Your task to perform on an android device: Is it going to rain this weekend? Image 0: 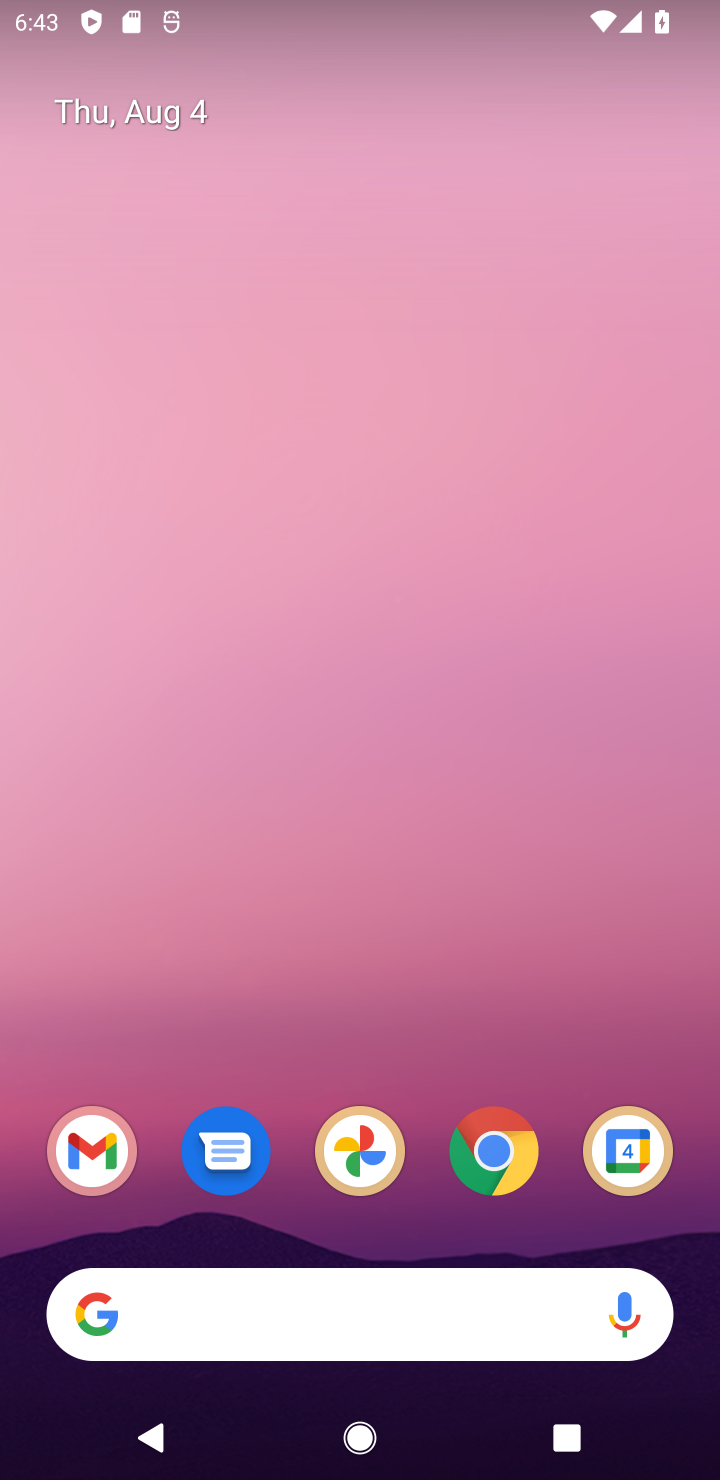
Step 0: drag from (305, 1111) to (279, 54)
Your task to perform on an android device: Is it going to rain this weekend? Image 1: 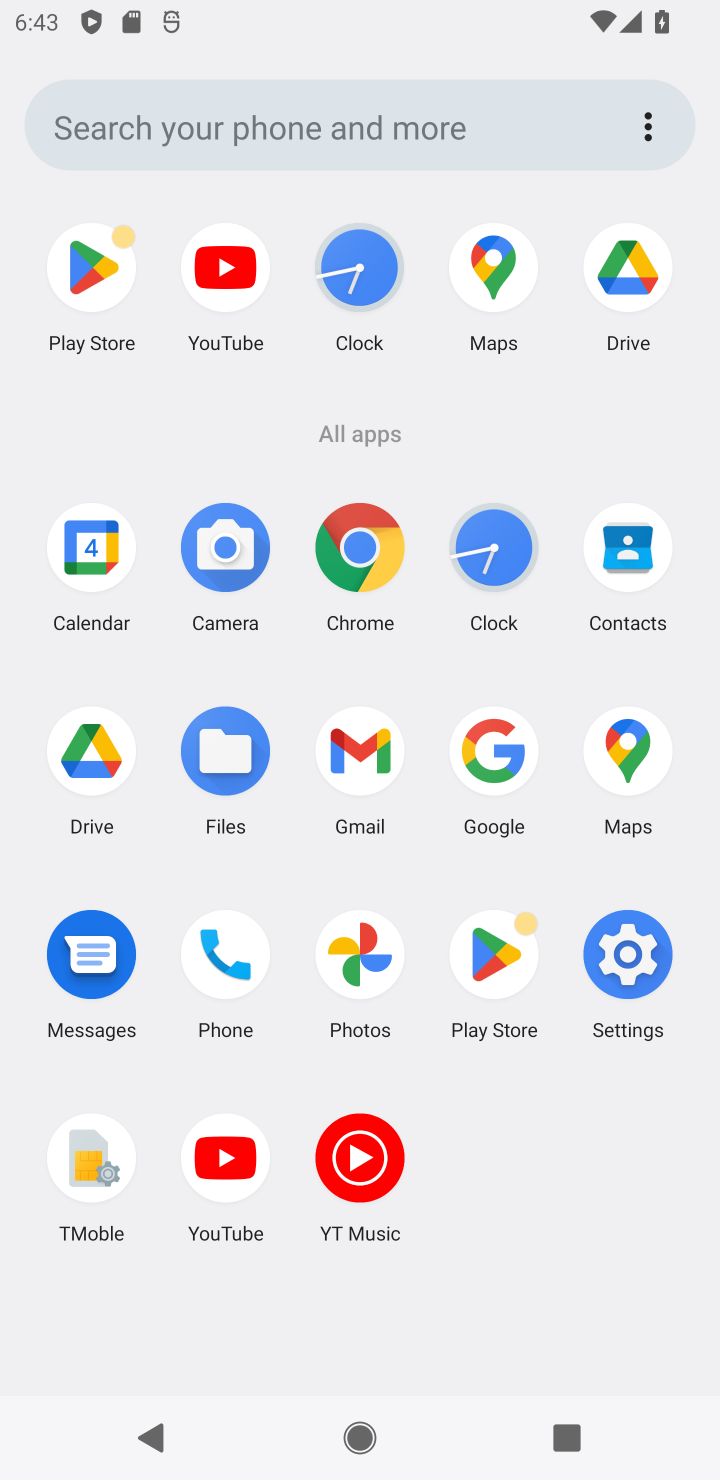
Step 1: click (361, 121)
Your task to perform on an android device: Is it going to rain this weekend? Image 2: 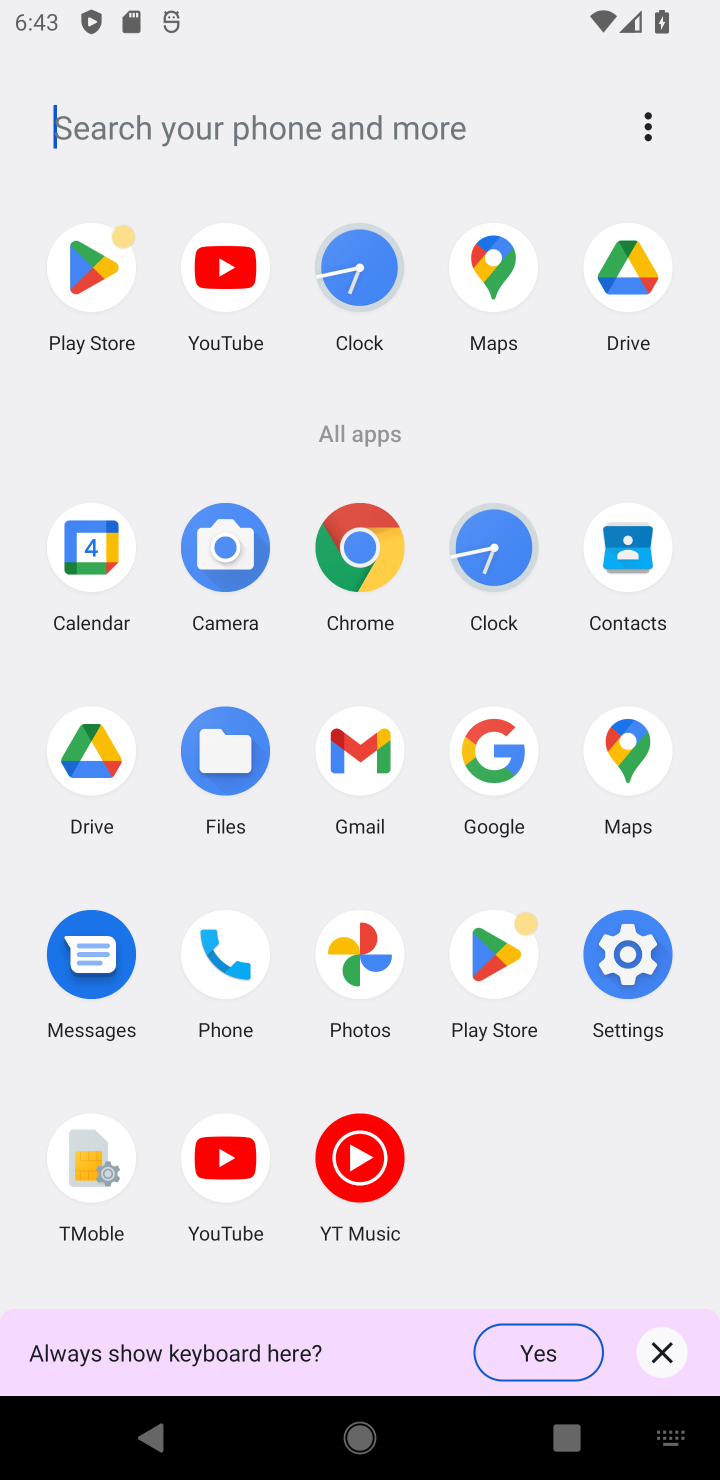
Step 2: type "weather"
Your task to perform on an android device: Is it going to rain this weekend? Image 3: 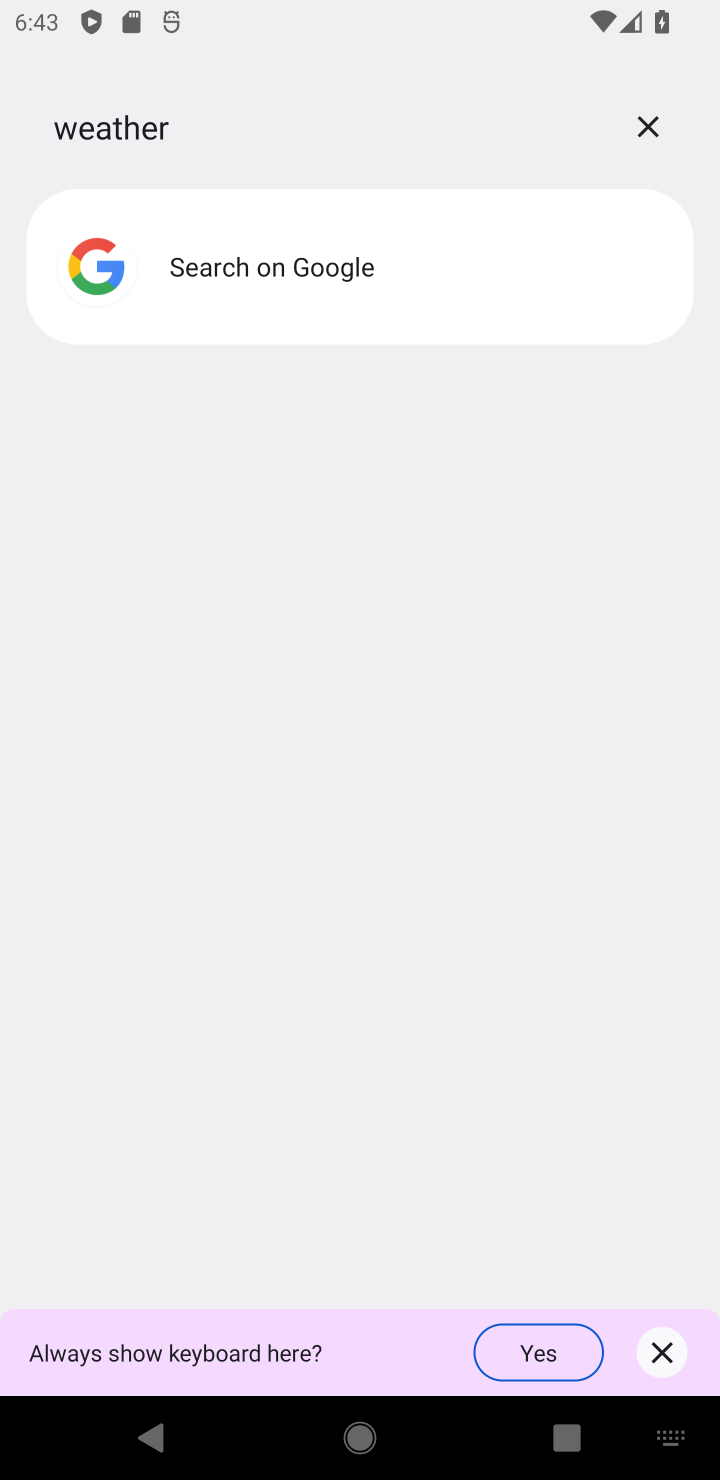
Step 3: click (226, 253)
Your task to perform on an android device: Is it going to rain this weekend? Image 4: 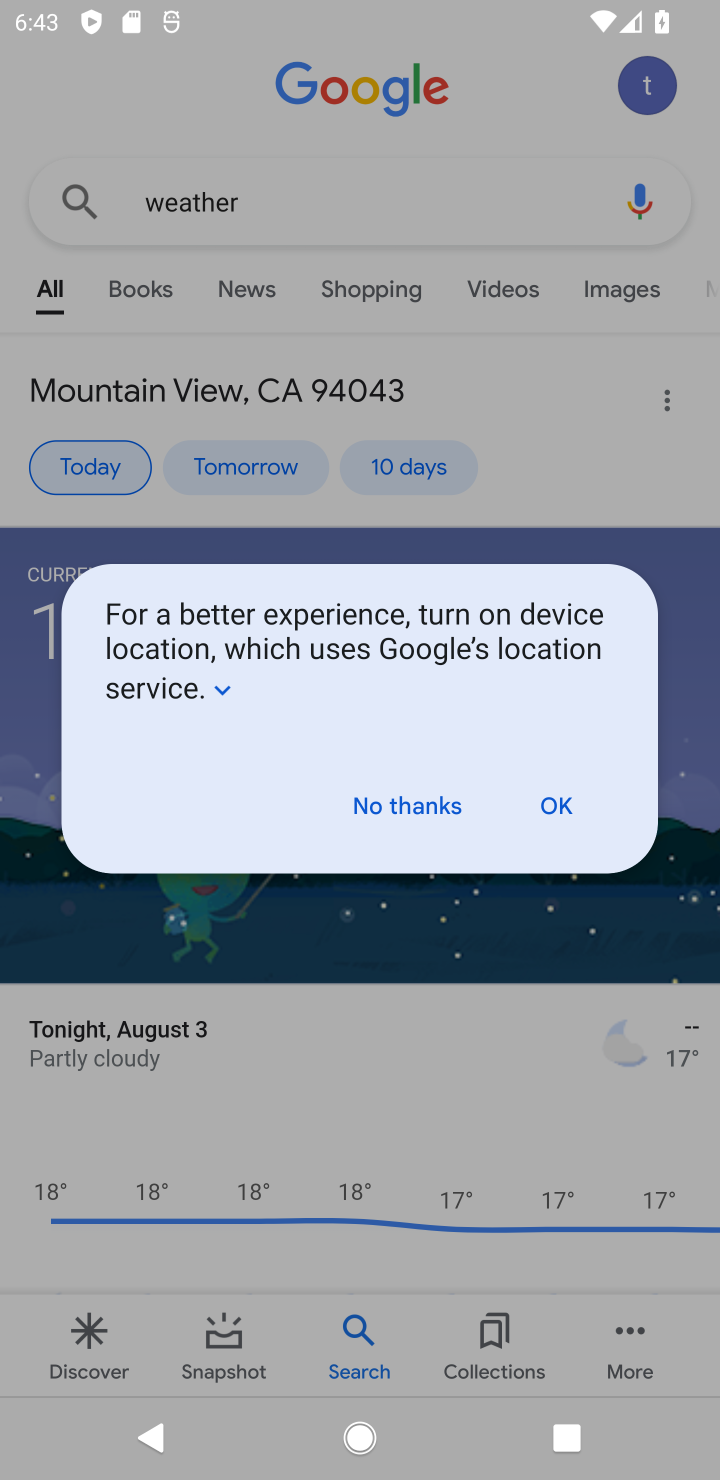
Step 4: click (553, 806)
Your task to perform on an android device: Is it going to rain this weekend? Image 5: 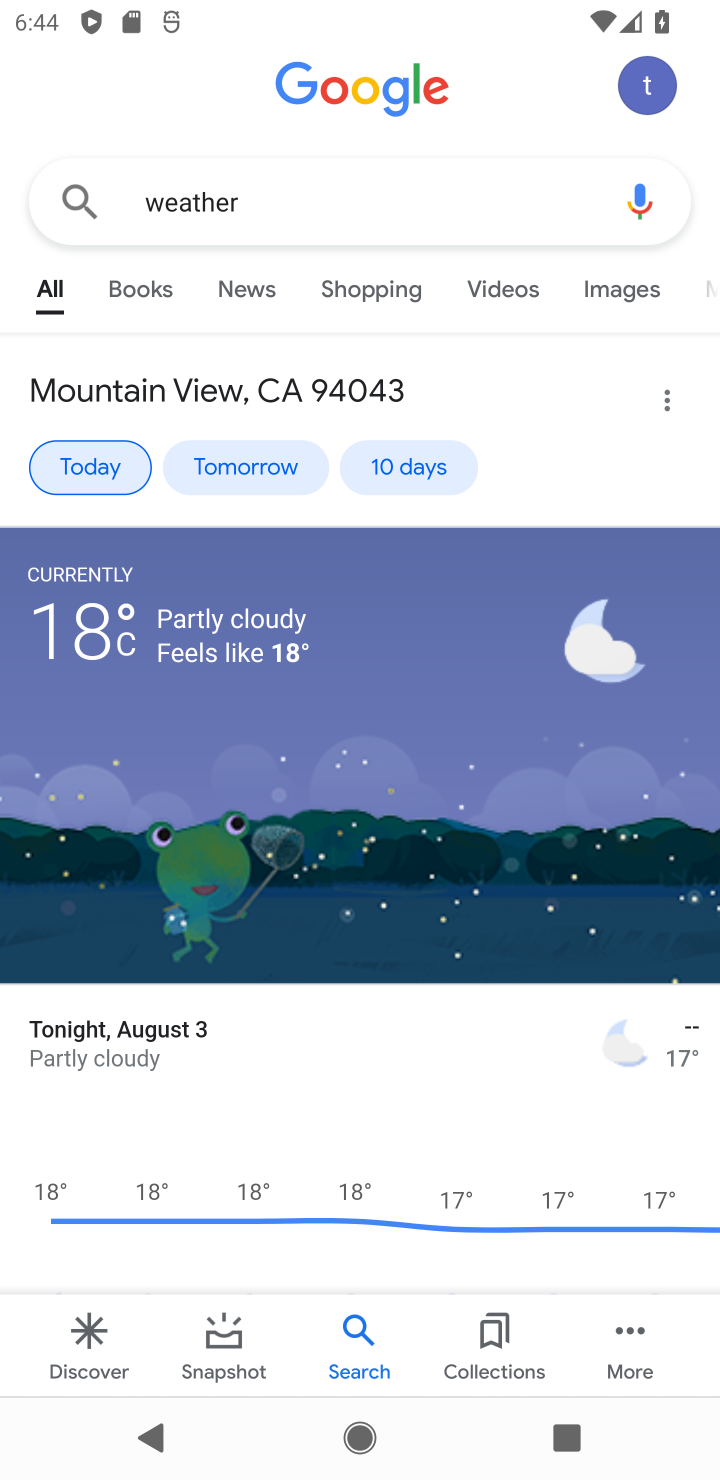
Step 5: click (414, 465)
Your task to perform on an android device: Is it going to rain this weekend? Image 6: 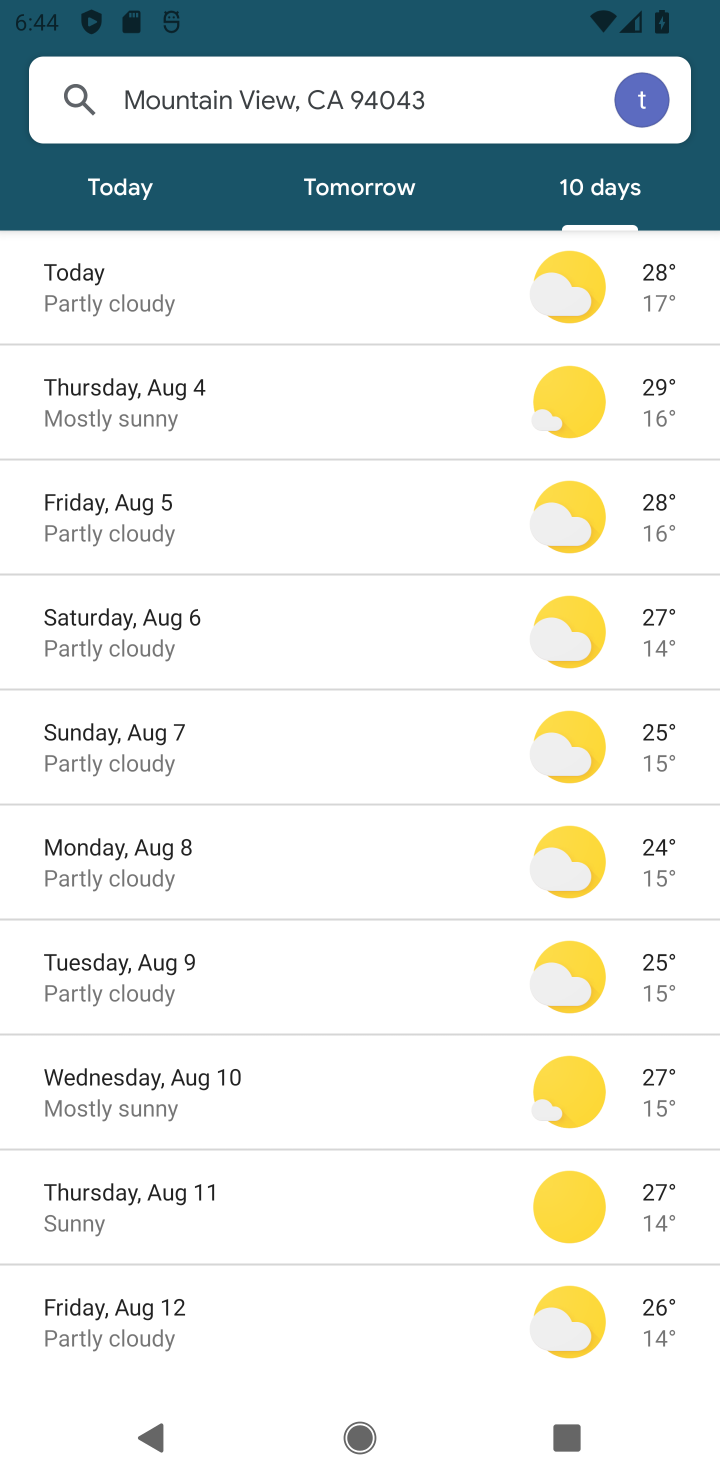
Step 6: task complete